Your task to perform on an android device: turn off wifi Image 0: 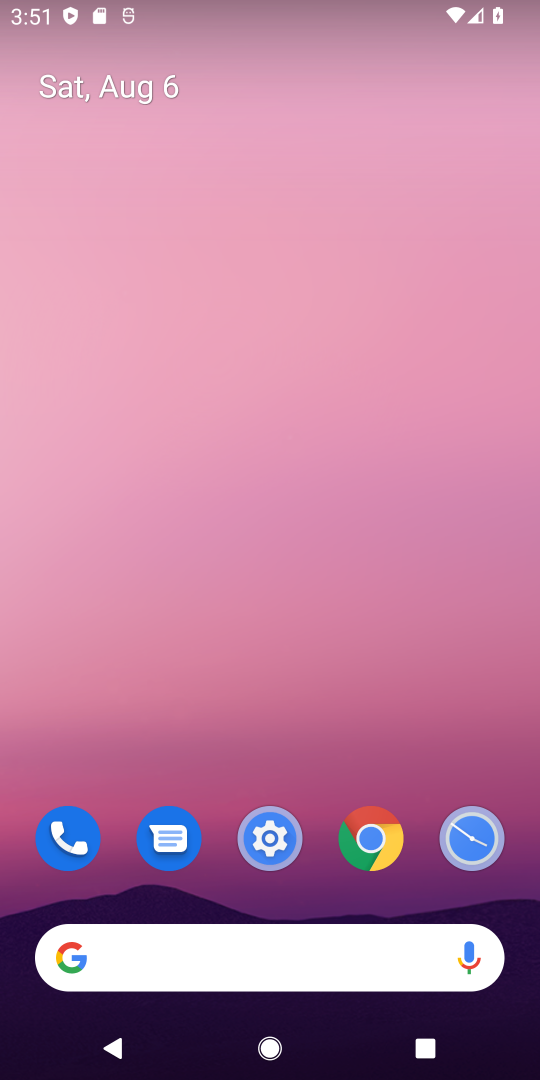
Step 0: drag from (248, 952) to (264, 39)
Your task to perform on an android device: turn off wifi Image 1: 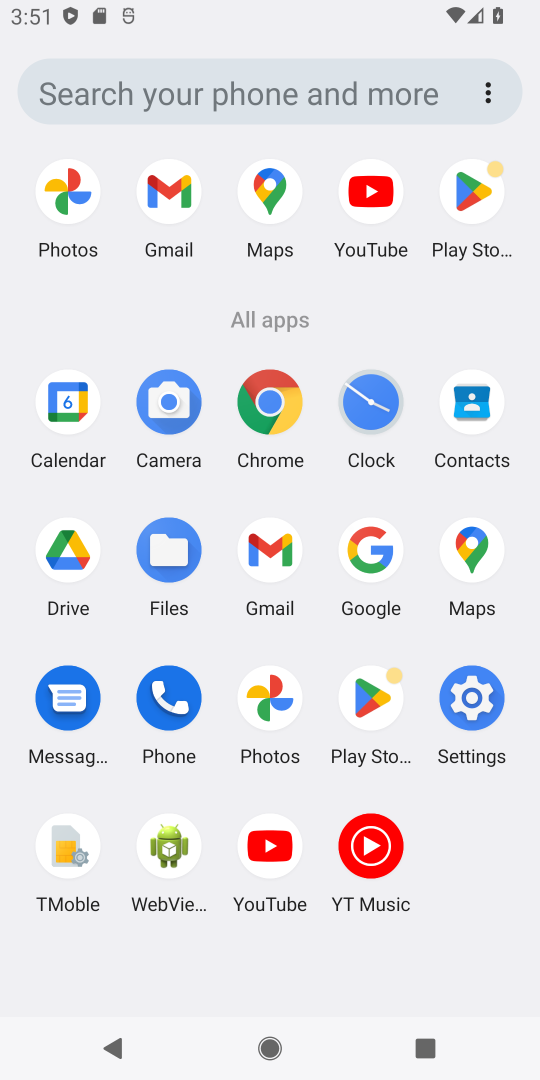
Step 1: click (473, 678)
Your task to perform on an android device: turn off wifi Image 2: 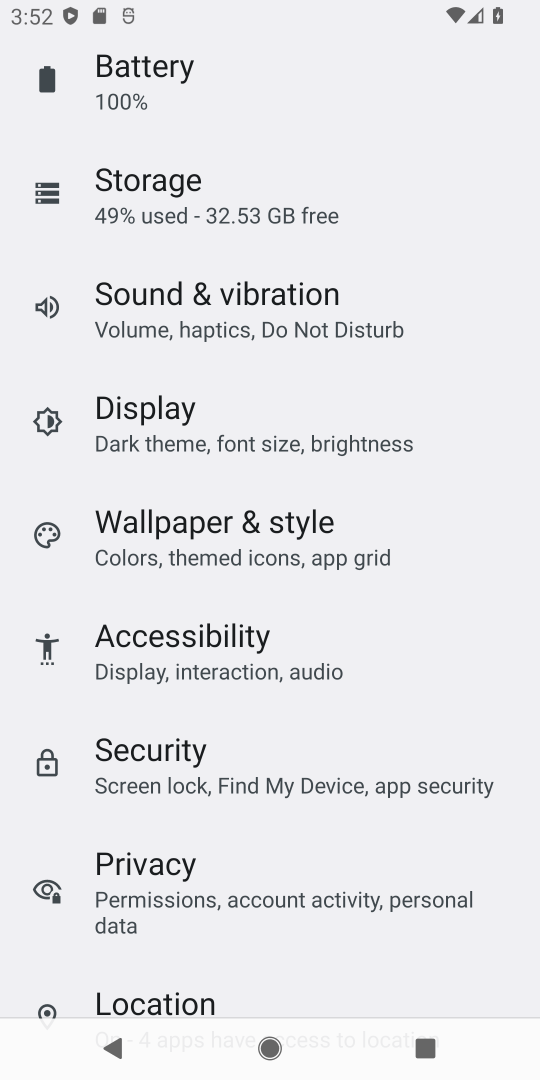
Step 2: drag from (491, 236) to (449, 587)
Your task to perform on an android device: turn off wifi Image 3: 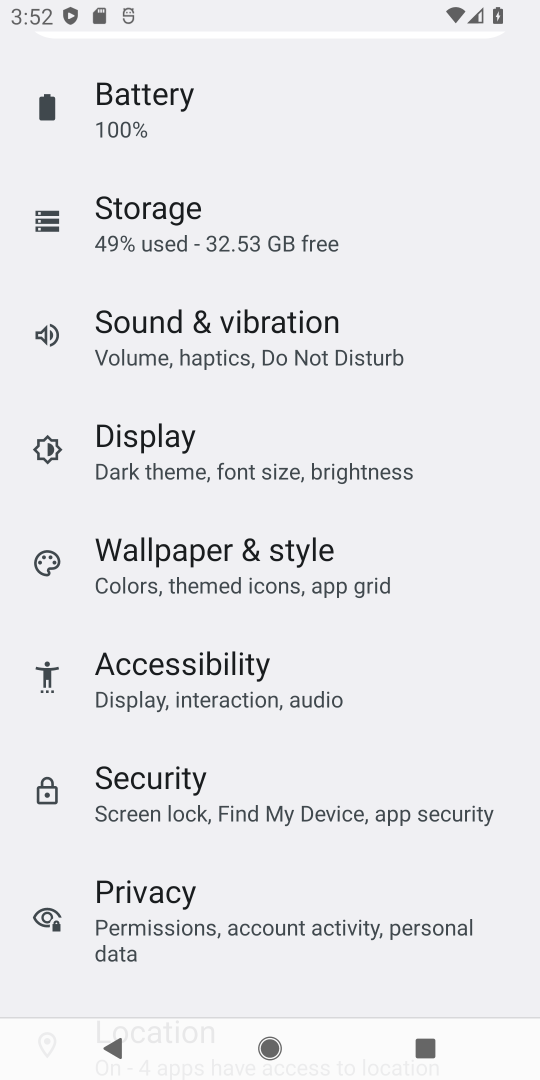
Step 3: drag from (493, 106) to (463, 439)
Your task to perform on an android device: turn off wifi Image 4: 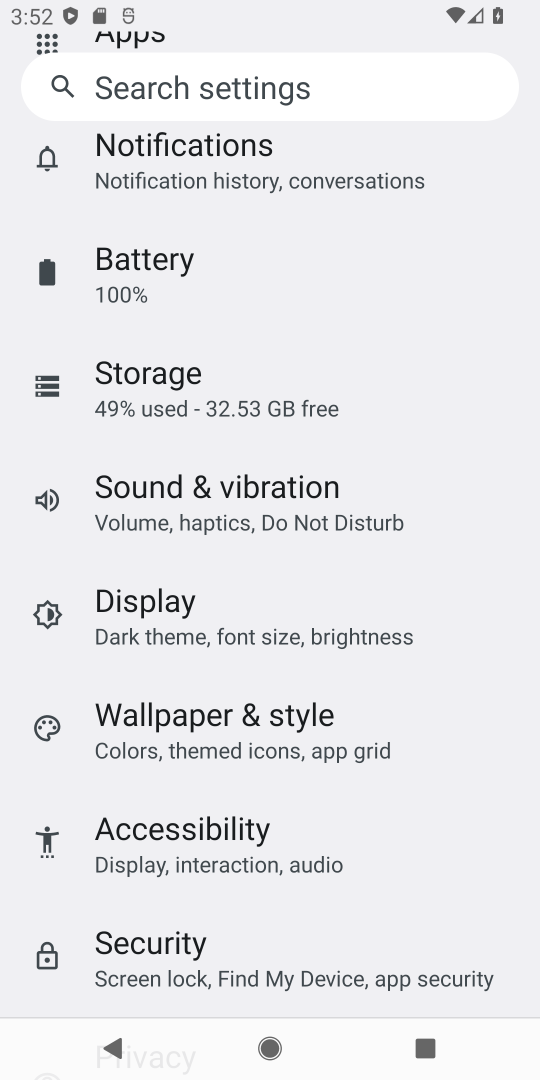
Step 4: drag from (487, 392) to (434, 979)
Your task to perform on an android device: turn off wifi Image 5: 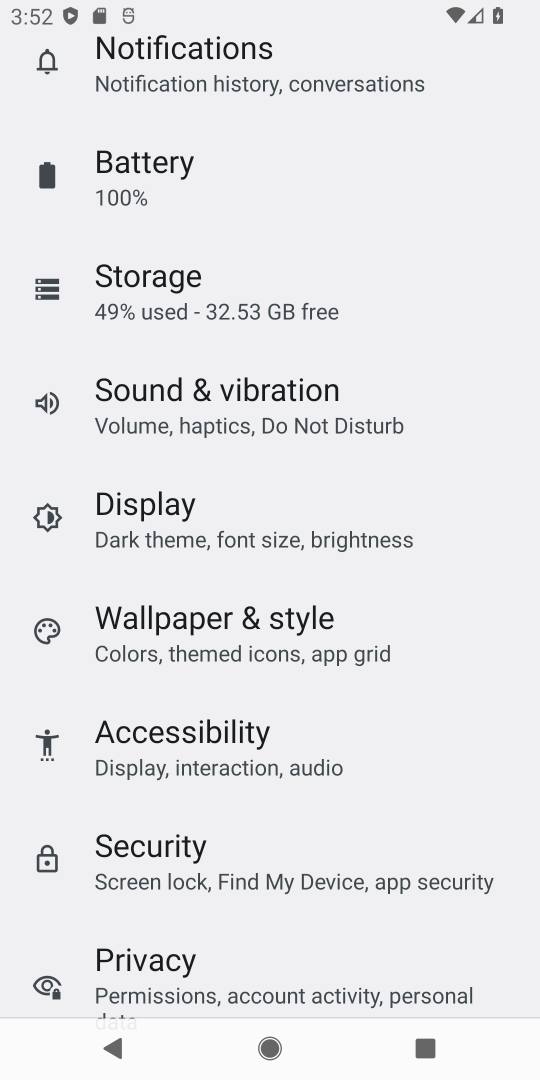
Step 5: drag from (463, 166) to (440, 651)
Your task to perform on an android device: turn off wifi Image 6: 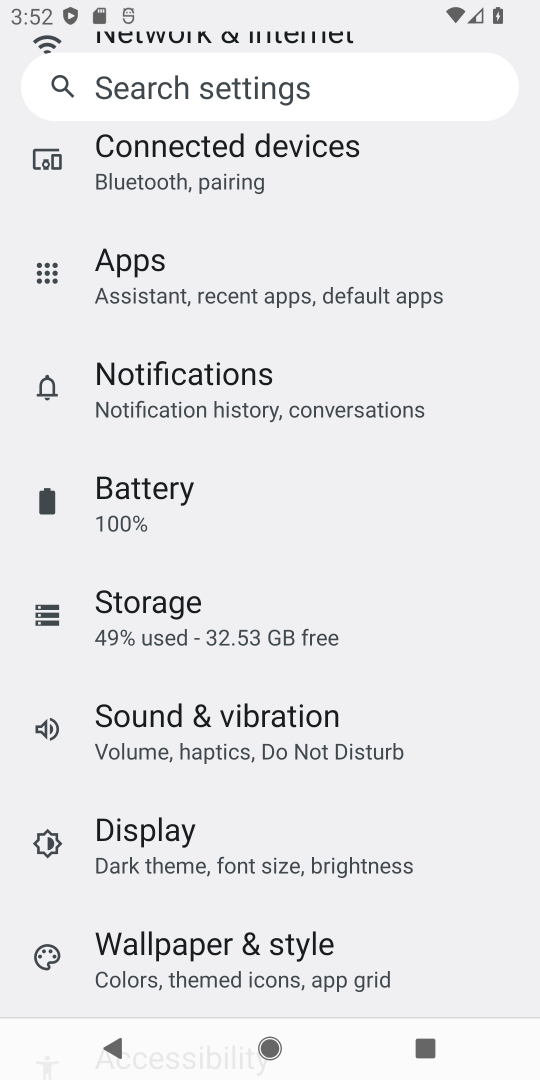
Step 6: click (304, 32)
Your task to perform on an android device: turn off wifi Image 7: 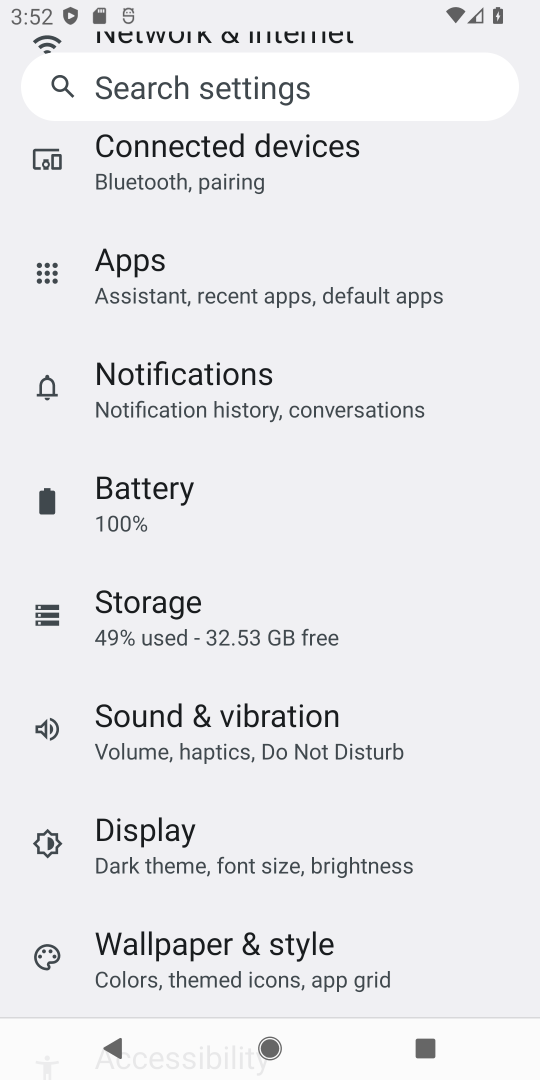
Step 7: drag from (504, 208) to (477, 522)
Your task to perform on an android device: turn off wifi Image 8: 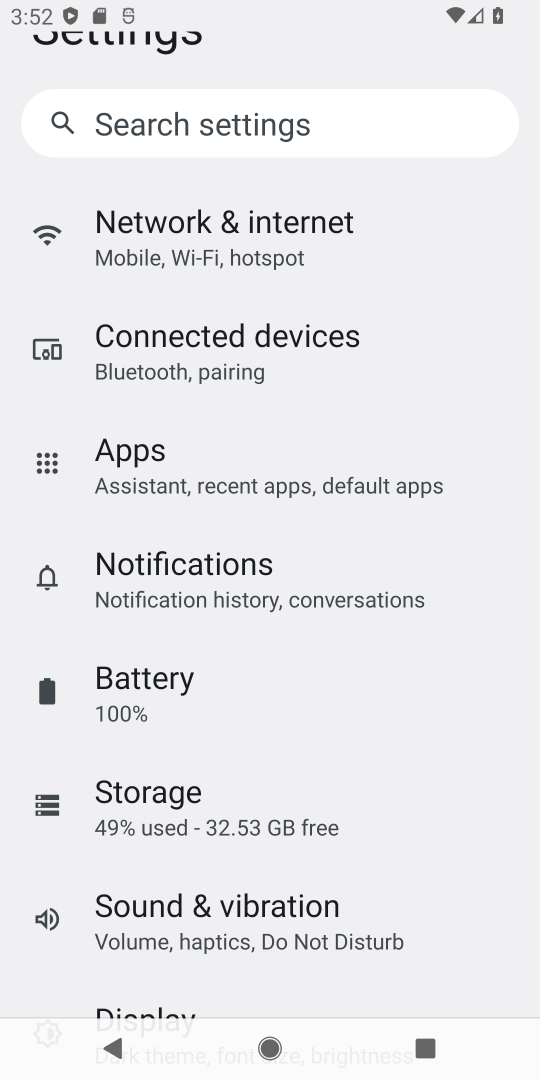
Step 8: click (252, 215)
Your task to perform on an android device: turn off wifi Image 9: 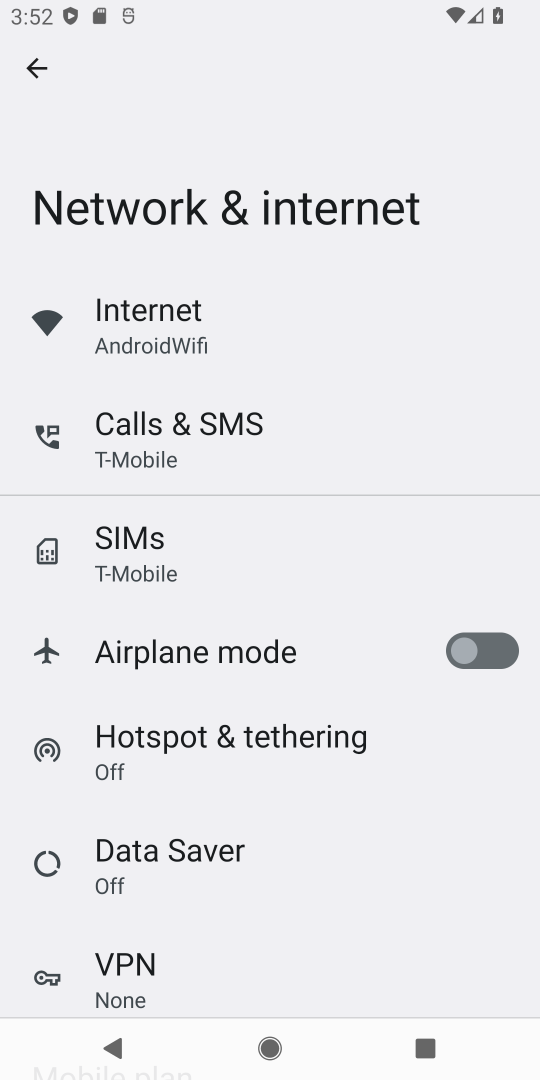
Step 9: click (169, 316)
Your task to perform on an android device: turn off wifi Image 10: 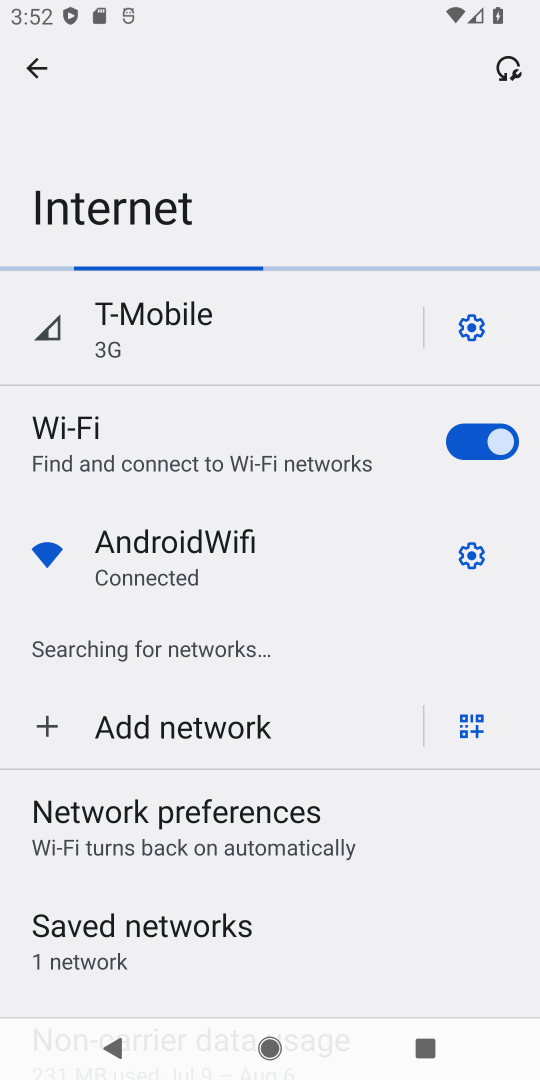
Step 10: click (464, 429)
Your task to perform on an android device: turn off wifi Image 11: 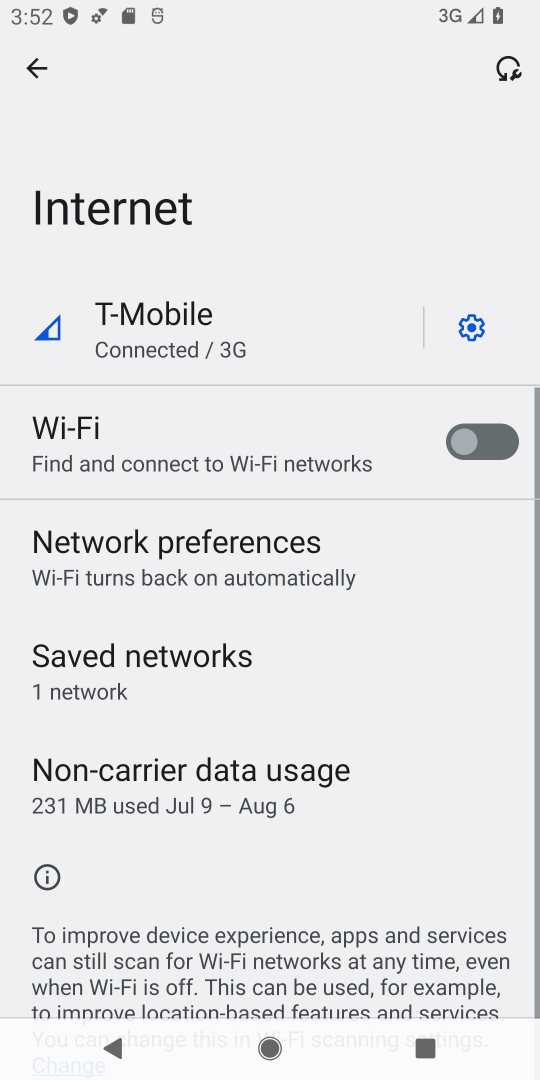
Step 11: task complete